Your task to perform on an android device: Go to notification settings Image 0: 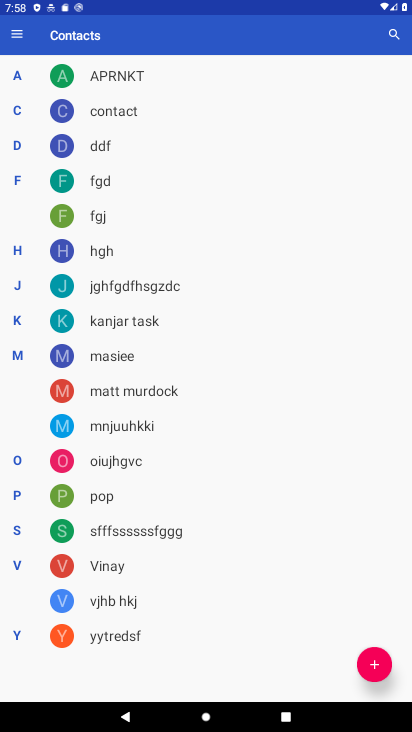
Step 0: press back button
Your task to perform on an android device: Go to notification settings Image 1: 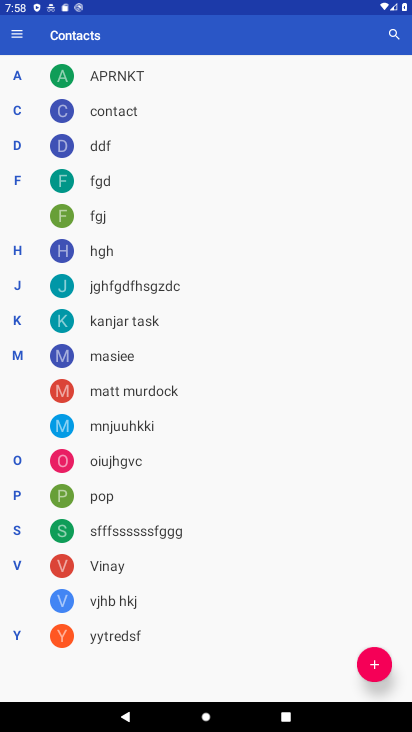
Step 1: press back button
Your task to perform on an android device: Go to notification settings Image 2: 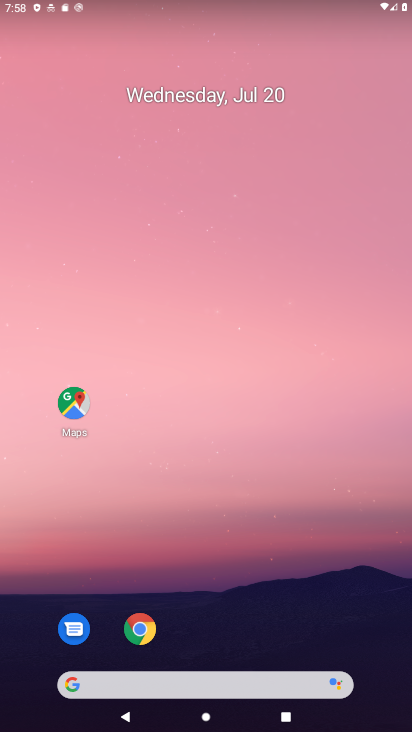
Step 2: drag from (201, 637) to (252, 227)
Your task to perform on an android device: Go to notification settings Image 3: 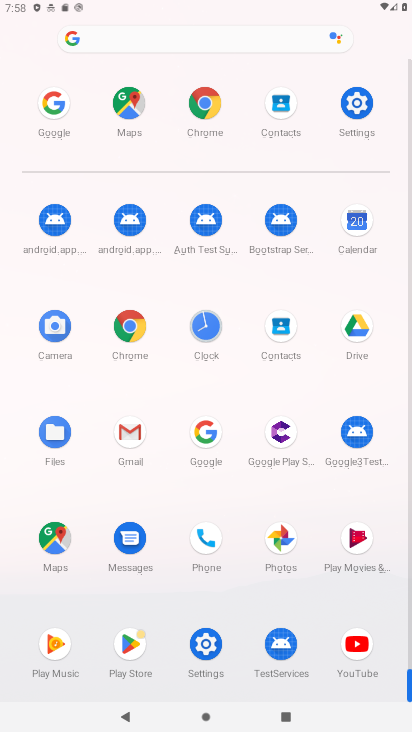
Step 3: click (212, 640)
Your task to perform on an android device: Go to notification settings Image 4: 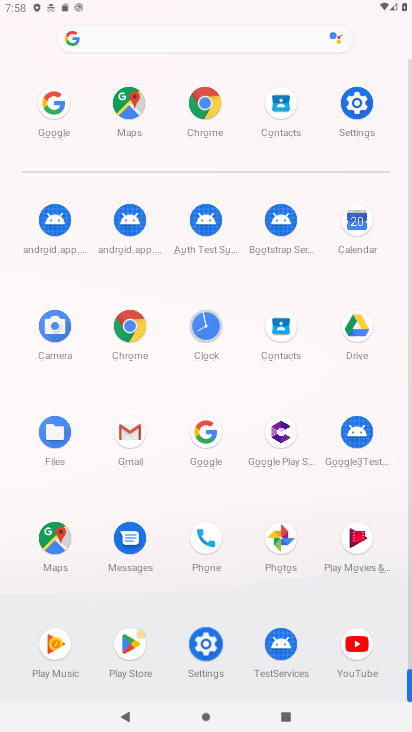
Step 4: click (210, 640)
Your task to perform on an android device: Go to notification settings Image 5: 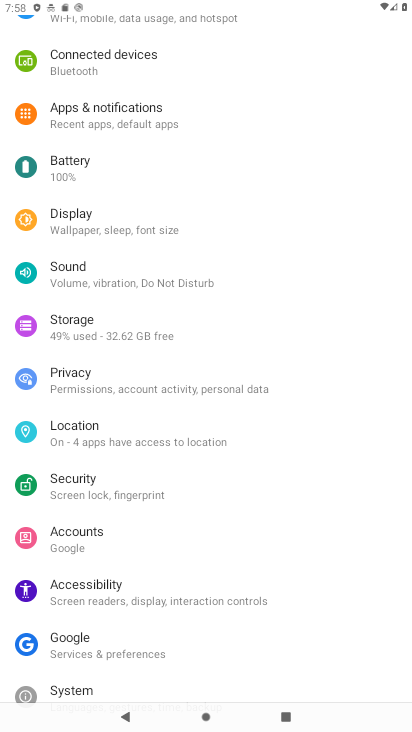
Step 5: click (98, 111)
Your task to perform on an android device: Go to notification settings Image 6: 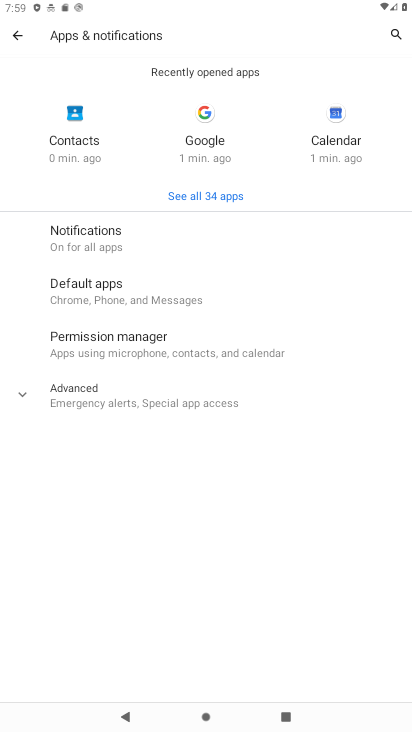
Step 6: click (90, 240)
Your task to perform on an android device: Go to notification settings Image 7: 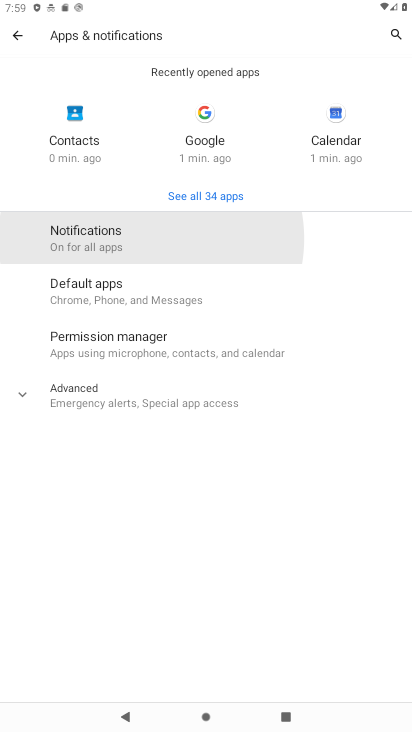
Step 7: click (88, 238)
Your task to perform on an android device: Go to notification settings Image 8: 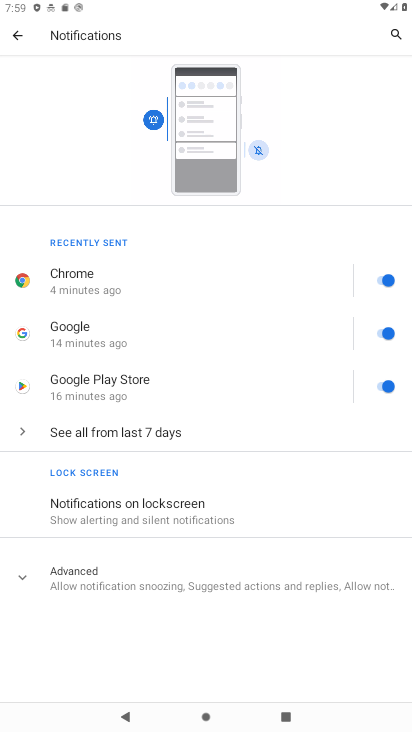
Step 8: click (76, 579)
Your task to perform on an android device: Go to notification settings Image 9: 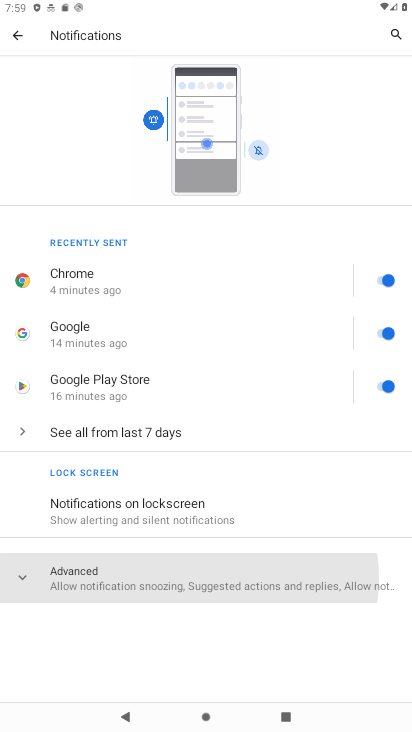
Step 9: click (76, 579)
Your task to perform on an android device: Go to notification settings Image 10: 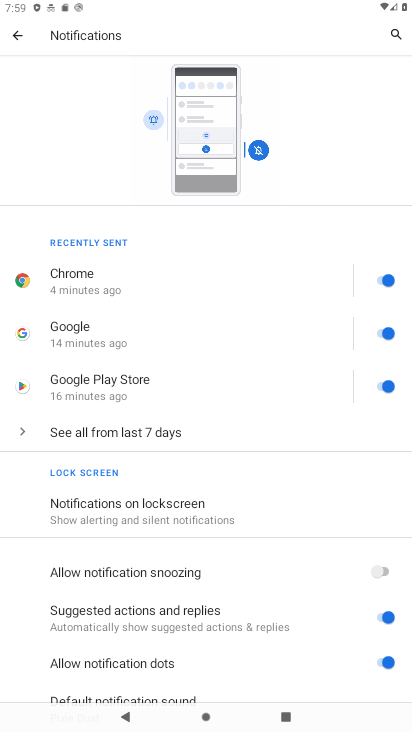
Step 10: task complete